Your task to perform on an android device: Play the last video I watched on Youtube Image 0: 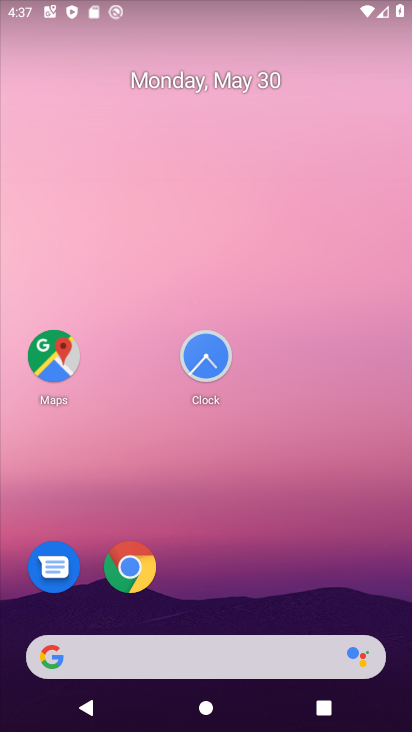
Step 0: drag from (234, 614) to (166, 111)
Your task to perform on an android device: Play the last video I watched on Youtube Image 1: 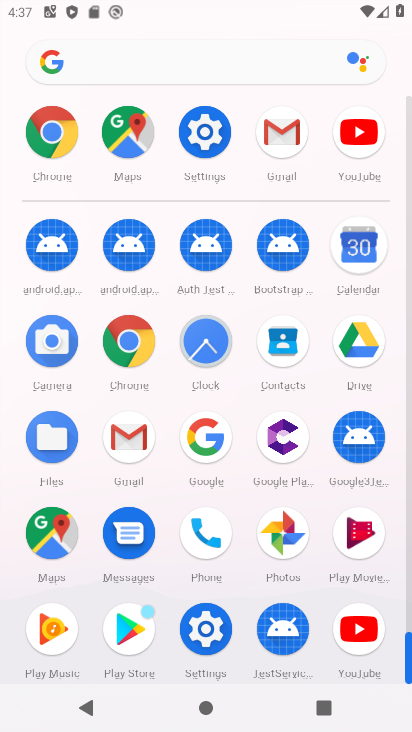
Step 1: click (352, 639)
Your task to perform on an android device: Play the last video I watched on Youtube Image 2: 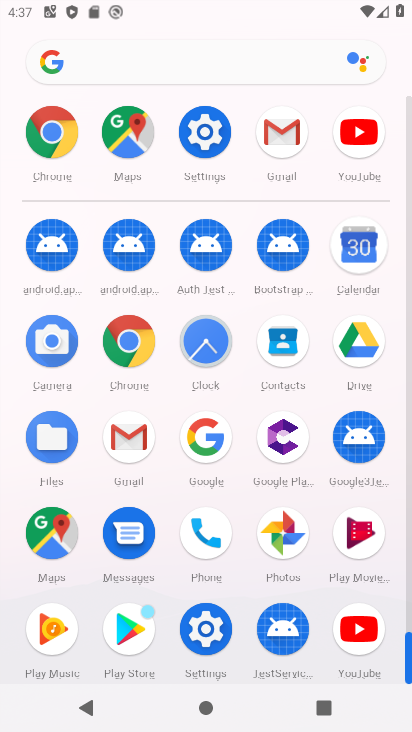
Step 2: click (353, 640)
Your task to perform on an android device: Play the last video I watched on Youtube Image 3: 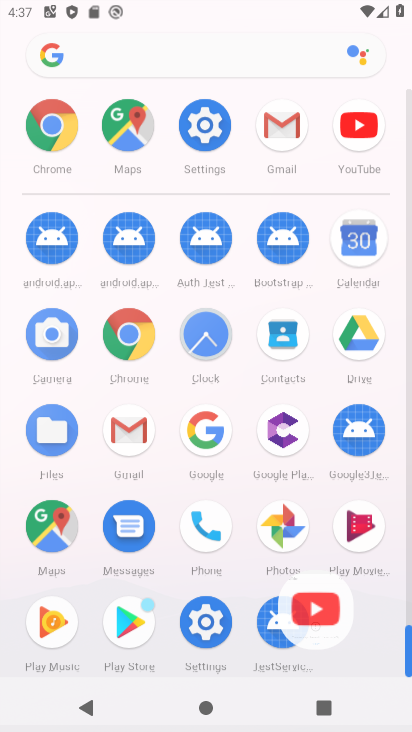
Step 3: click (355, 640)
Your task to perform on an android device: Play the last video I watched on Youtube Image 4: 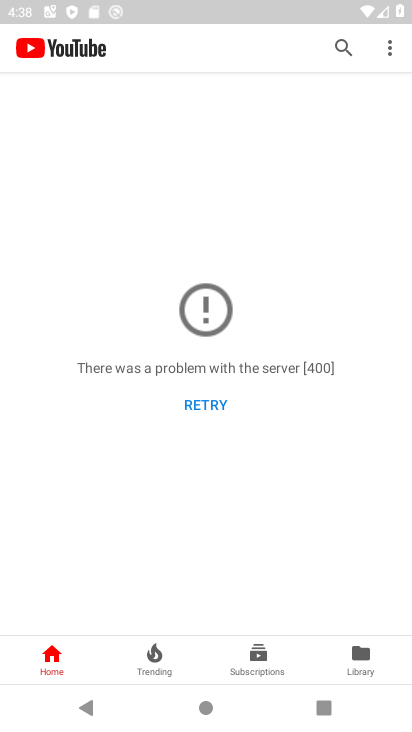
Step 4: task complete